Your task to perform on an android device: delete browsing data in the chrome app Image 0: 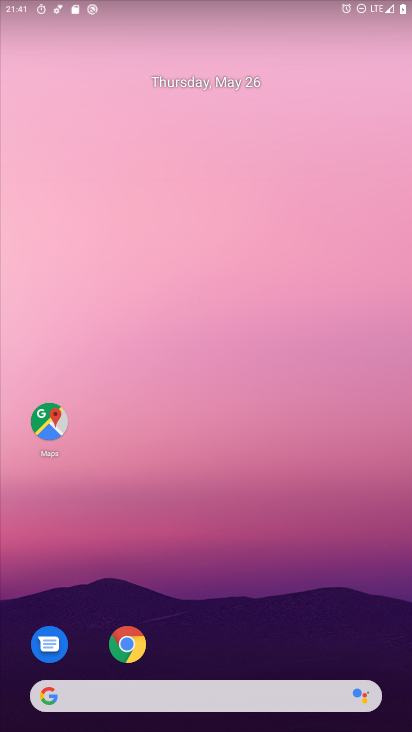
Step 0: drag from (197, 645) to (235, 322)
Your task to perform on an android device: delete browsing data in the chrome app Image 1: 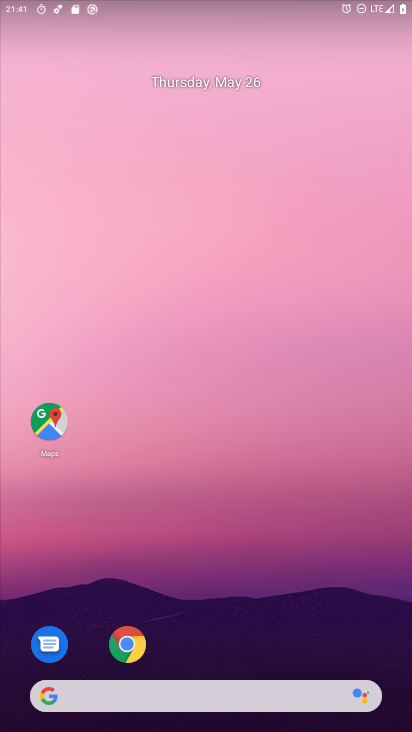
Step 1: drag from (184, 651) to (316, 15)
Your task to perform on an android device: delete browsing data in the chrome app Image 2: 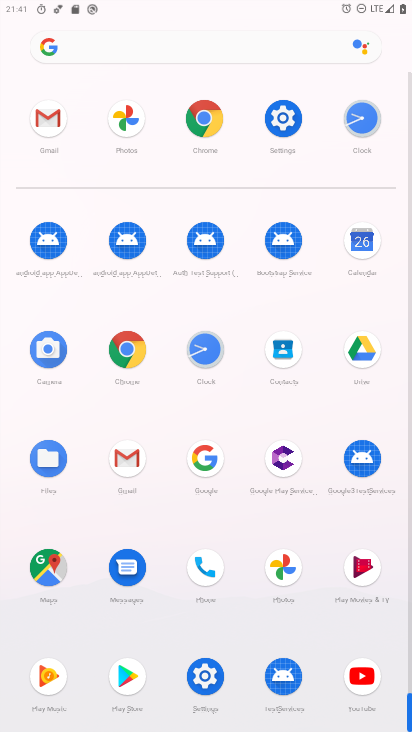
Step 2: click (135, 348)
Your task to perform on an android device: delete browsing data in the chrome app Image 3: 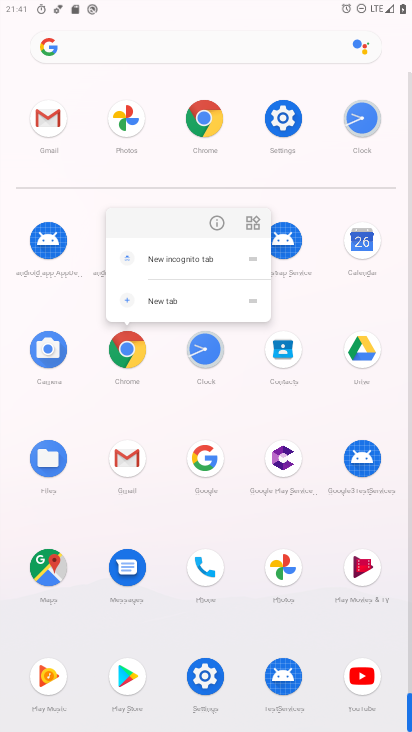
Step 3: click (215, 219)
Your task to perform on an android device: delete browsing data in the chrome app Image 4: 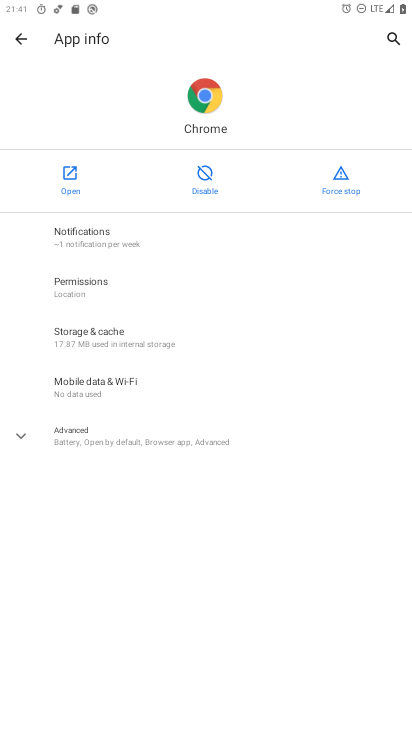
Step 4: click (66, 178)
Your task to perform on an android device: delete browsing data in the chrome app Image 5: 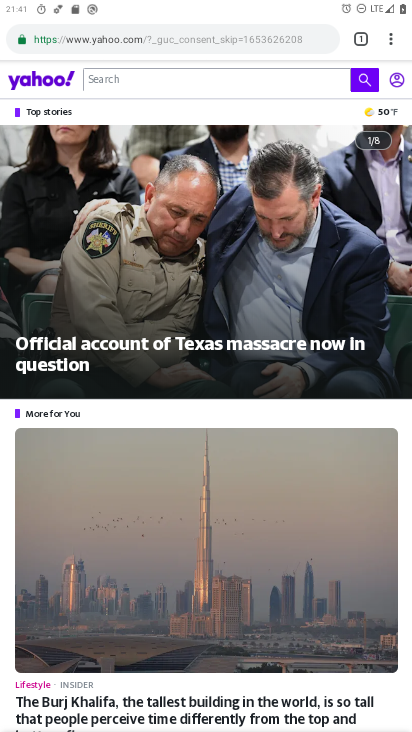
Step 5: task complete